Your task to perform on an android device: refresh tabs in the chrome app Image 0: 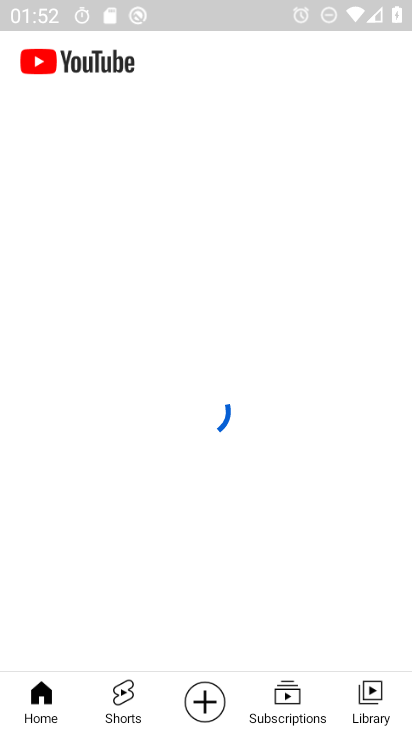
Step 0: click (50, 203)
Your task to perform on an android device: refresh tabs in the chrome app Image 1: 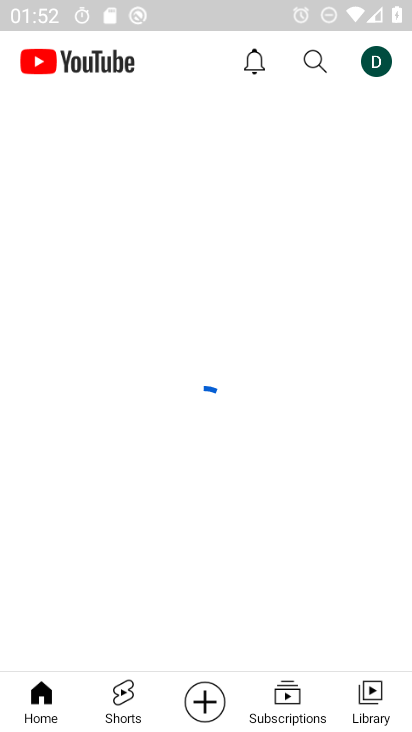
Step 1: press back button
Your task to perform on an android device: refresh tabs in the chrome app Image 2: 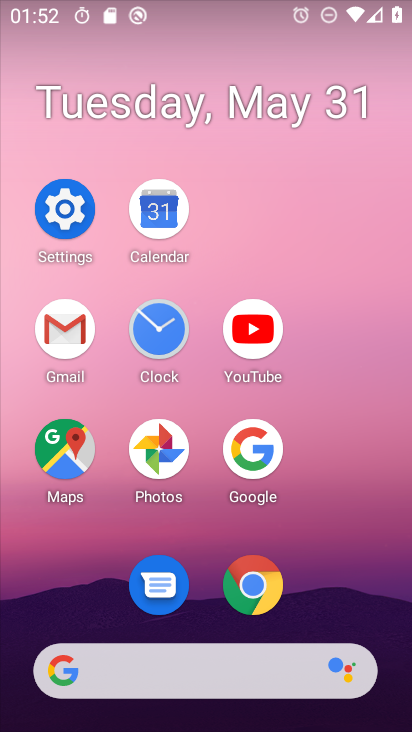
Step 2: click (248, 583)
Your task to perform on an android device: refresh tabs in the chrome app Image 3: 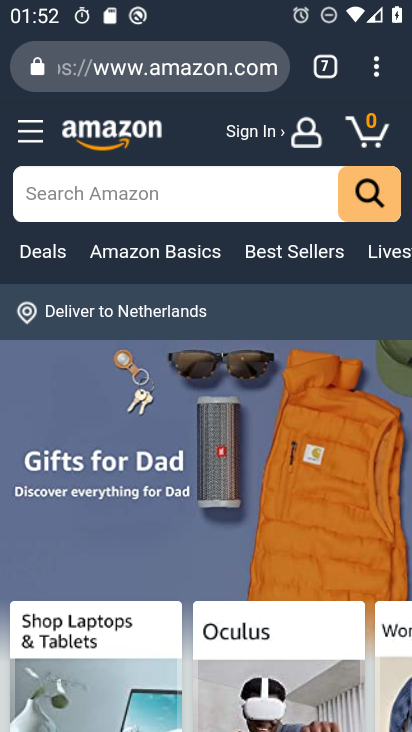
Step 3: click (386, 58)
Your task to perform on an android device: refresh tabs in the chrome app Image 4: 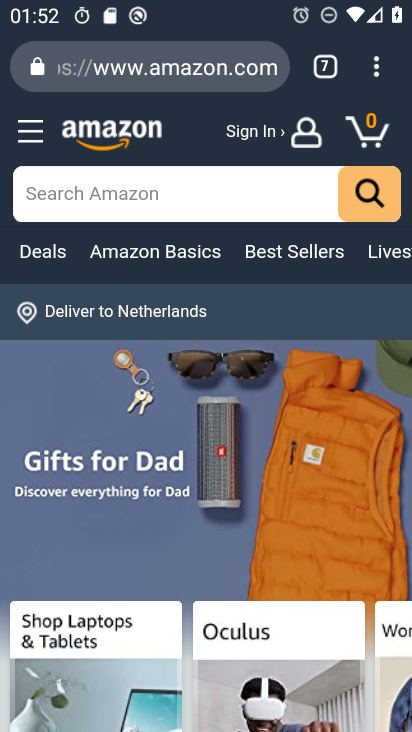
Step 4: click (375, 61)
Your task to perform on an android device: refresh tabs in the chrome app Image 5: 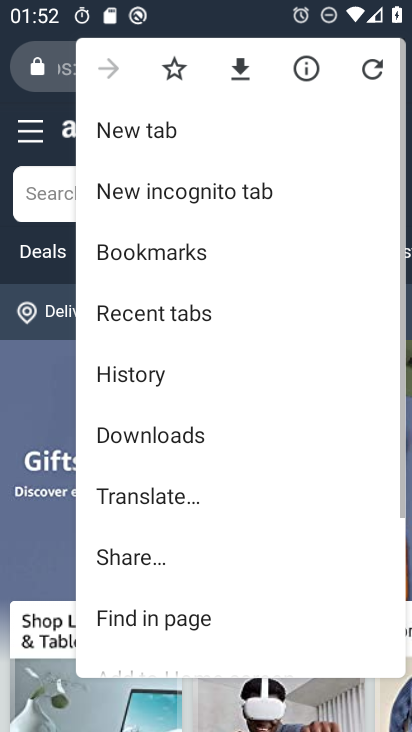
Step 5: click (384, 71)
Your task to perform on an android device: refresh tabs in the chrome app Image 6: 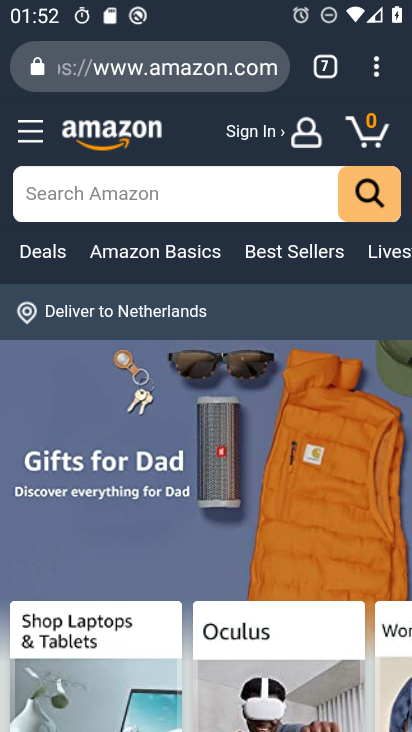
Step 6: task complete